Your task to perform on an android device: Open internet settings Image 0: 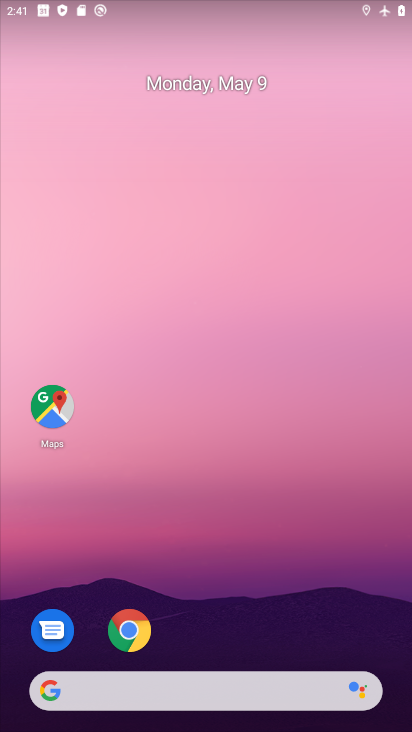
Step 0: drag from (262, 623) to (257, 356)
Your task to perform on an android device: Open internet settings Image 1: 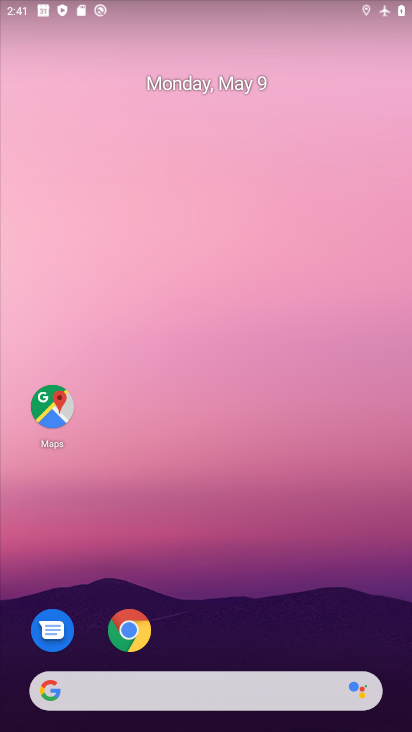
Step 1: drag from (200, 661) to (188, 237)
Your task to perform on an android device: Open internet settings Image 2: 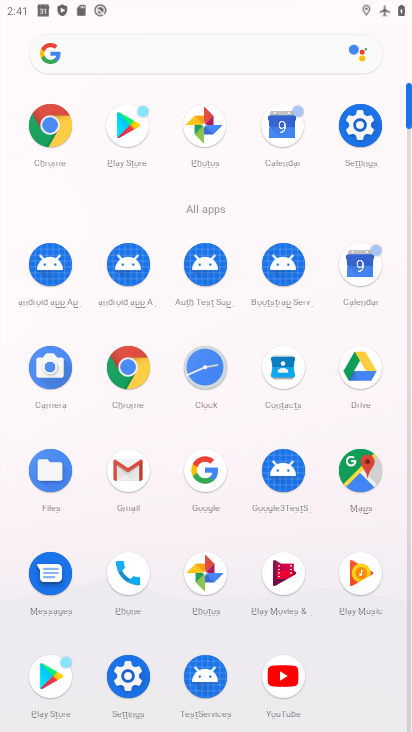
Step 2: click (359, 133)
Your task to perform on an android device: Open internet settings Image 3: 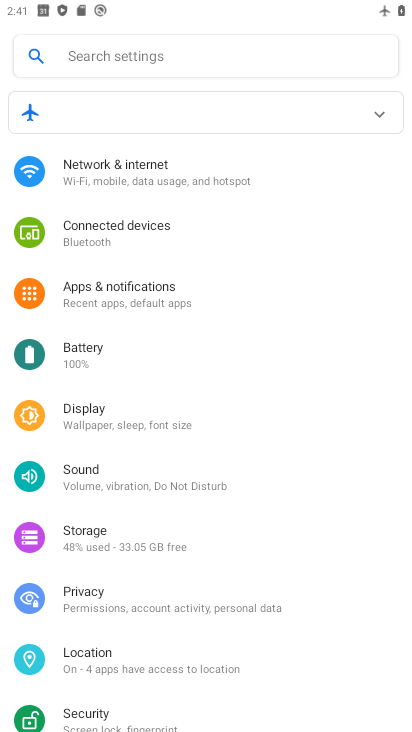
Step 3: click (249, 181)
Your task to perform on an android device: Open internet settings Image 4: 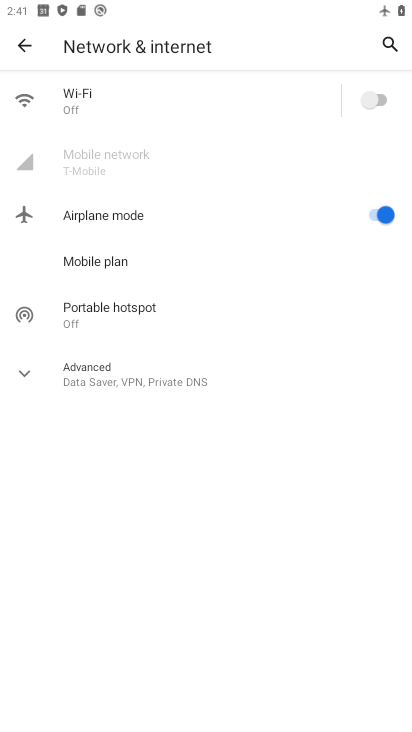
Step 4: click (249, 181)
Your task to perform on an android device: Open internet settings Image 5: 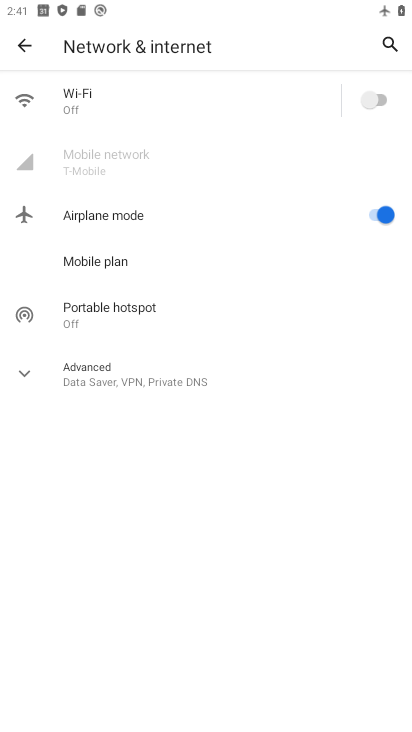
Step 5: task complete